Your task to perform on an android device: turn on the 12-hour format for clock Image 0: 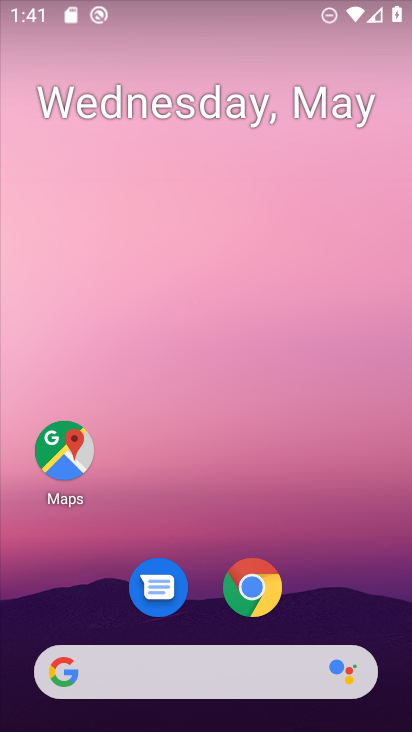
Step 0: drag from (330, 604) to (292, 182)
Your task to perform on an android device: turn on the 12-hour format for clock Image 1: 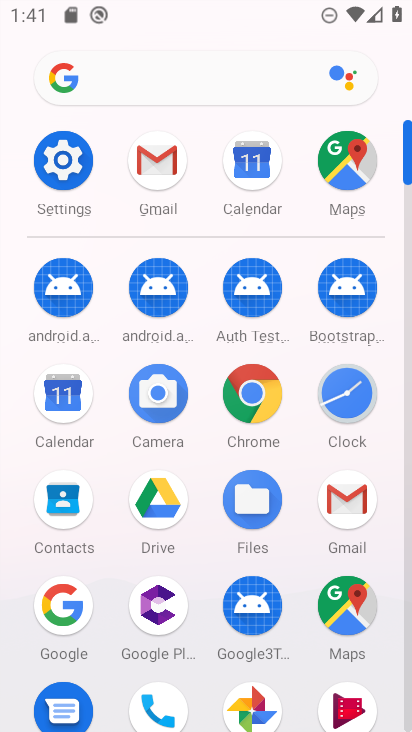
Step 1: drag from (302, 577) to (305, 202)
Your task to perform on an android device: turn on the 12-hour format for clock Image 2: 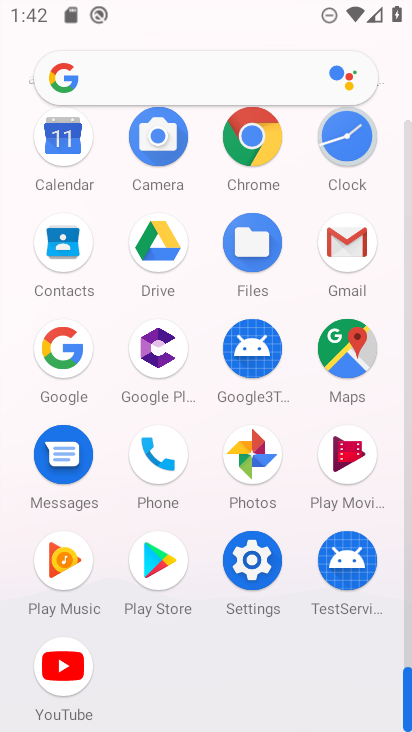
Step 2: click (257, 567)
Your task to perform on an android device: turn on the 12-hour format for clock Image 3: 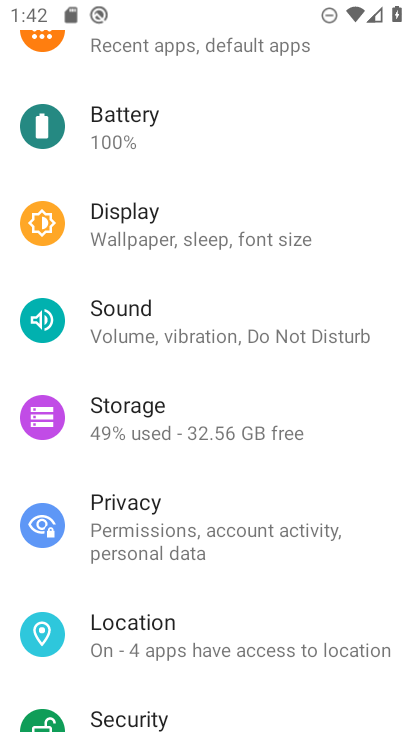
Step 3: press back button
Your task to perform on an android device: turn on the 12-hour format for clock Image 4: 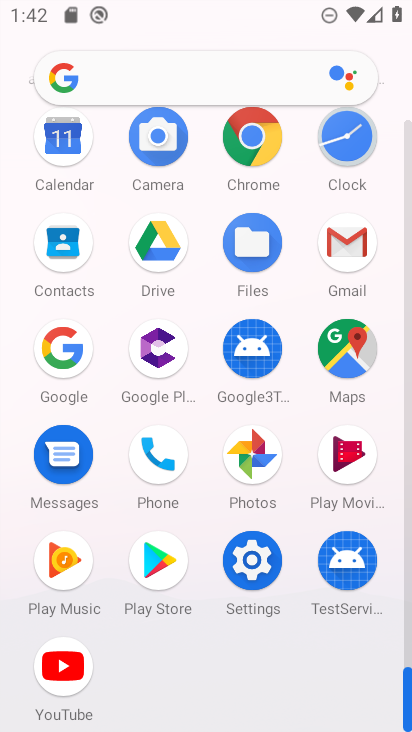
Step 4: click (344, 157)
Your task to perform on an android device: turn on the 12-hour format for clock Image 5: 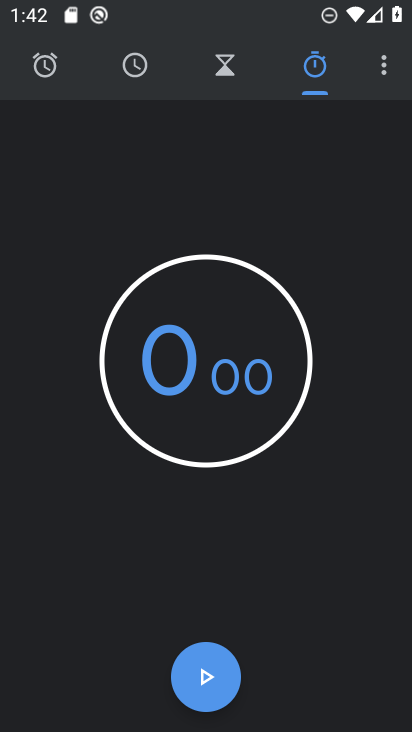
Step 5: click (388, 64)
Your task to perform on an android device: turn on the 12-hour format for clock Image 6: 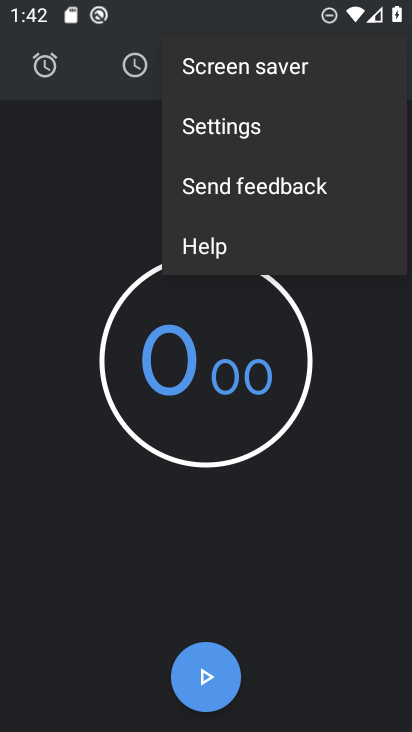
Step 6: click (265, 128)
Your task to perform on an android device: turn on the 12-hour format for clock Image 7: 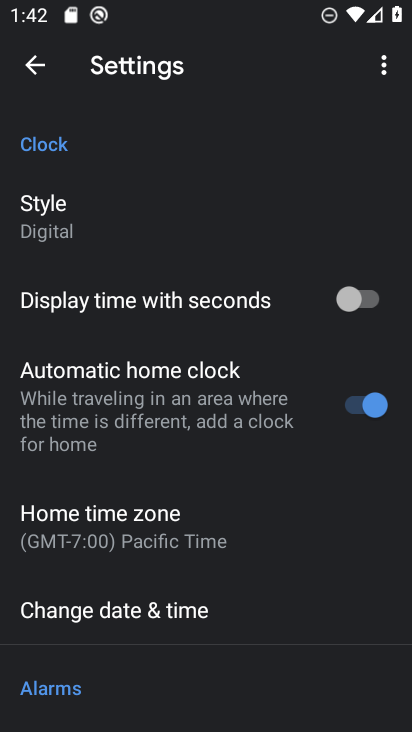
Step 7: click (177, 612)
Your task to perform on an android device: turn on the 12-hour format for clock Image 8: 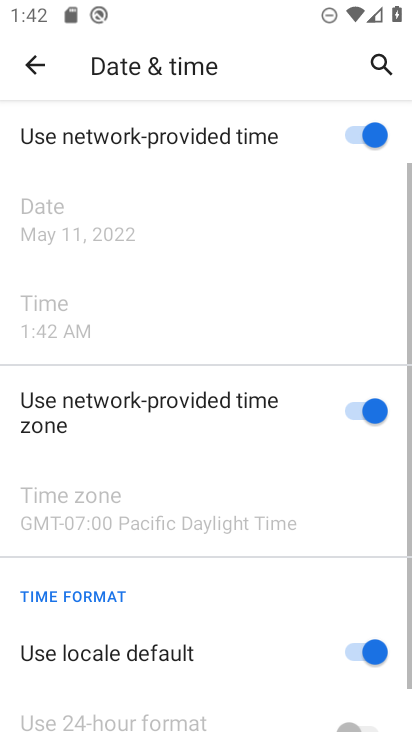
Step 8: task complete